Your task to perform on an android device: Find coffee shops on Maps Image 0: 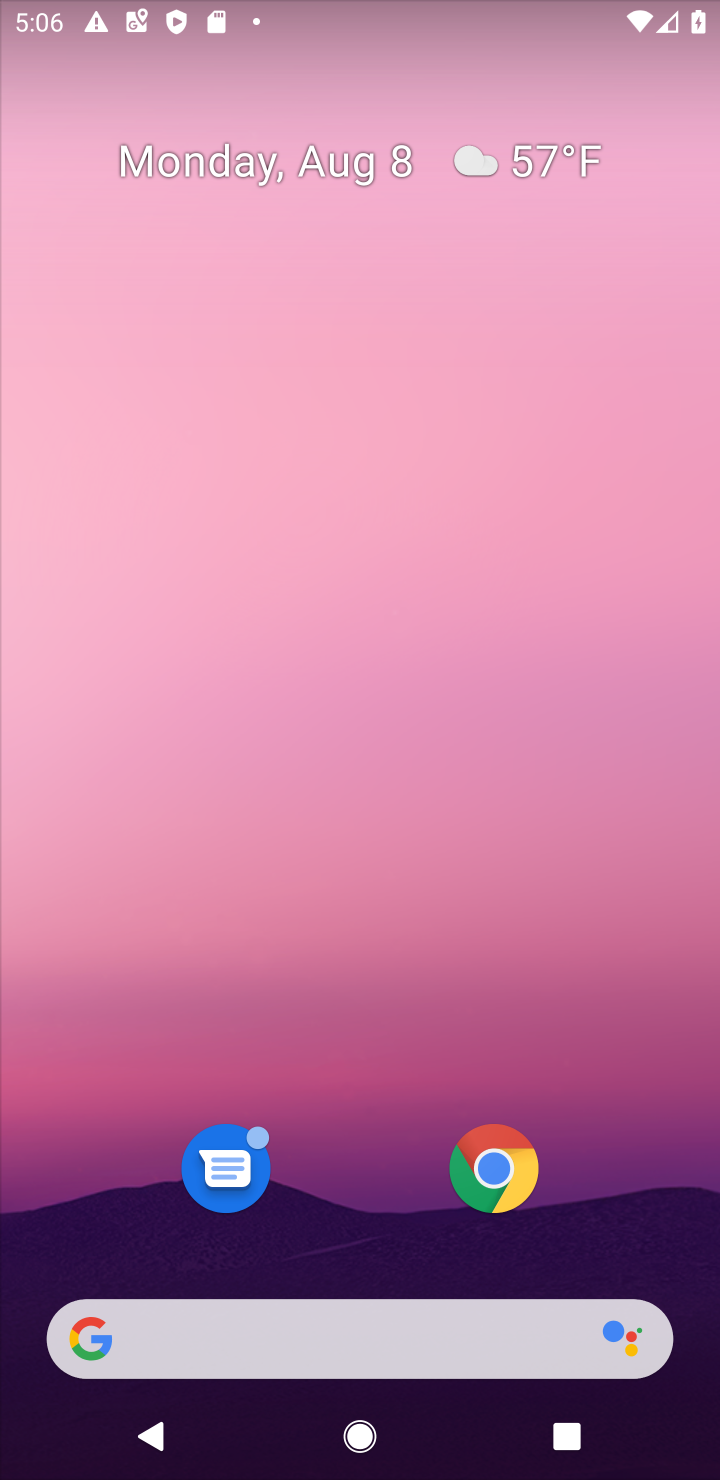
Step 0: drag from (333, 1242) to (359, 484)
Your task to perform on an android device: Find coffee shops on Maps Image 1: 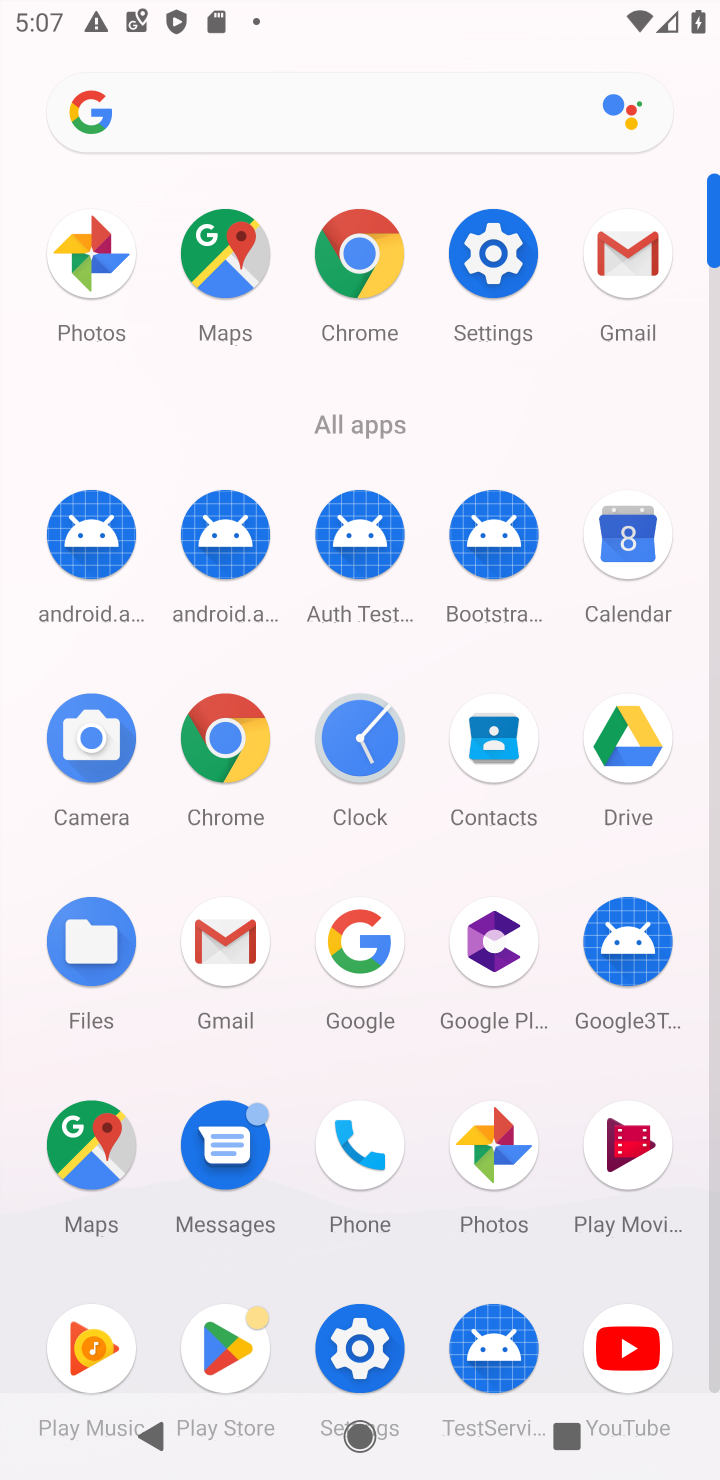
Step 1: click (111, 1171)
Your task to perform on an android device: Find coffee shops on Maps Image 2: 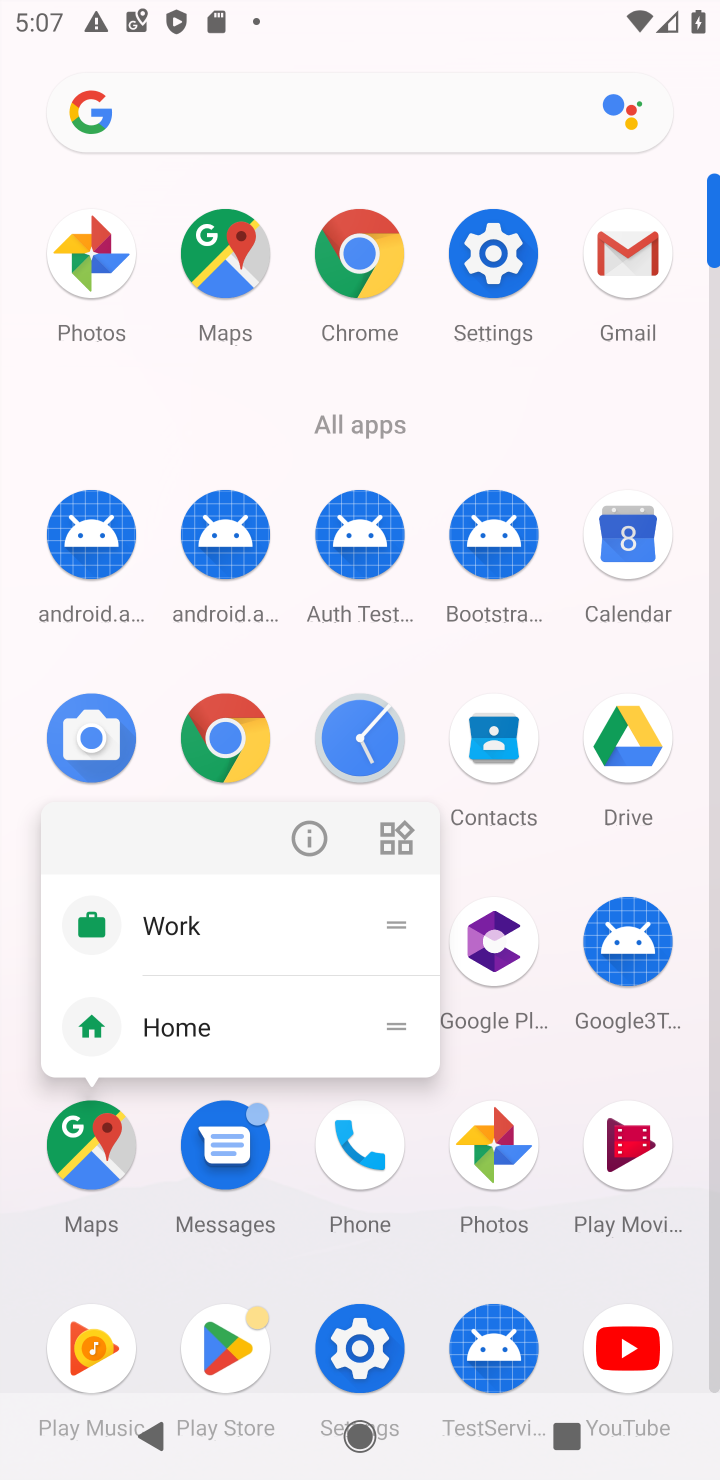
Step 2: click (111, 1171)
Your task to perform on an android device: Find coffee shops on Maps Image 3: 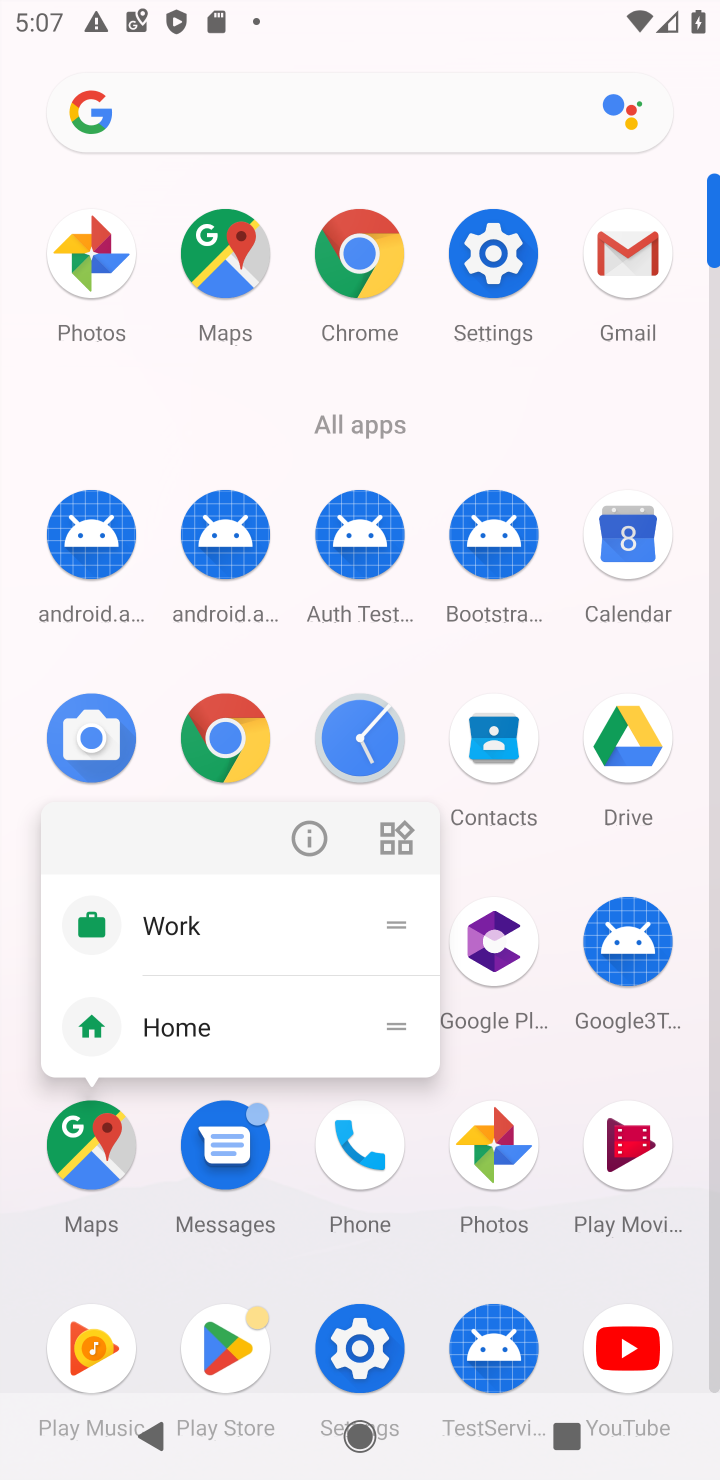
Step 3: click (99, 1167)
Your task to perform on an android device: Find coffee shops on Maps Image 4: 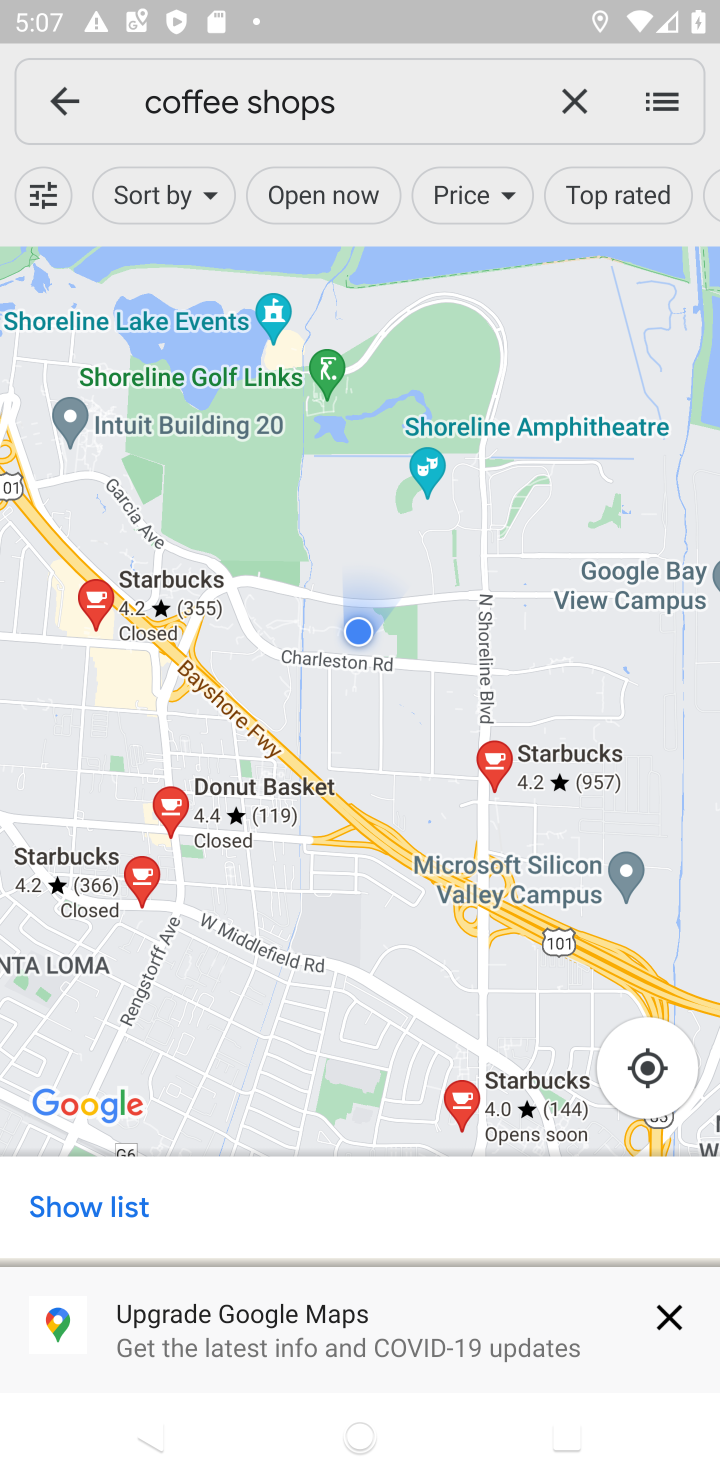
Step 4: task complete